Your task to perform on an android device: Open my contact list Image 0: 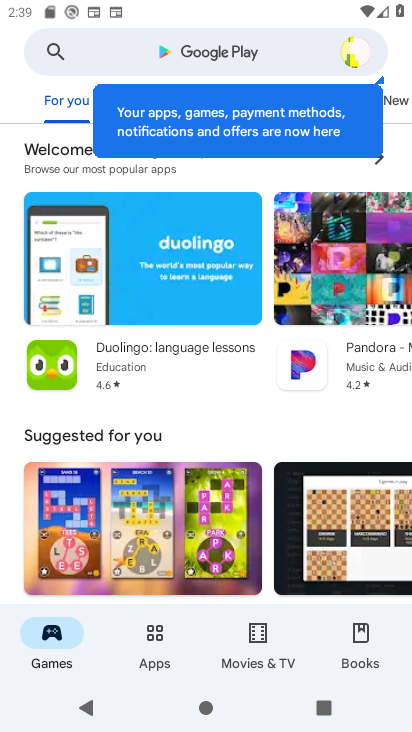
Step 0: press home button
Your task to perform on an android device: Open my contact list Image 1: 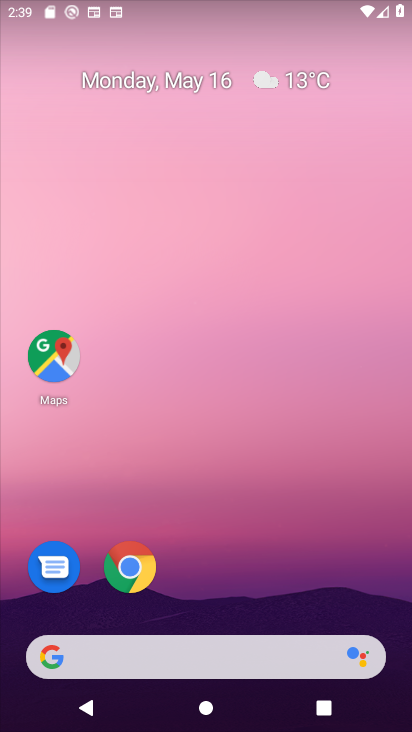
Step 1: drag from (320, 564) to (313, 56)
Your task to perform on an android device: Open my contact list Image 2: 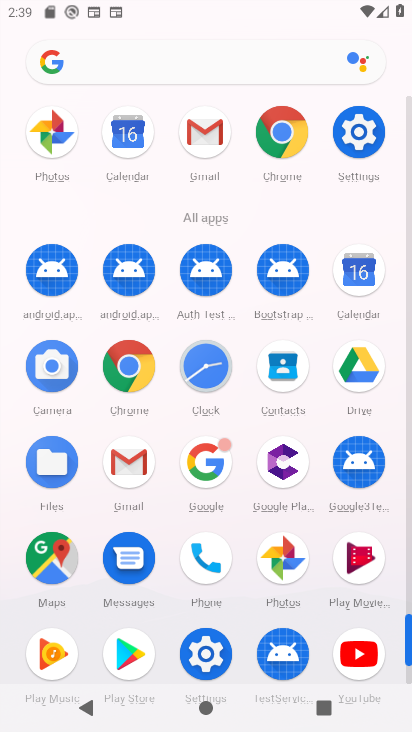
Step 2: click (292, 368)
Your task to perform on an android device: Open my contact list Image 3: 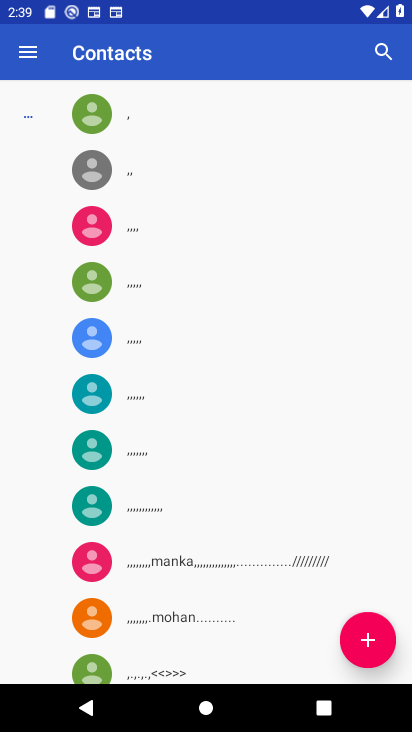
Step 3: task complete